Your task to perform on an android device: Open Chrome and go to settings Image 0: 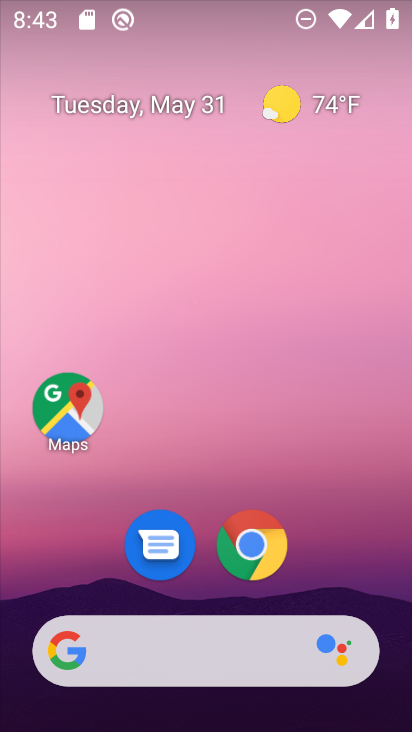
Step 0: drag from (355, 523) to (224, 20)
Your task to perform on an android device: Open Chrome and go to settings Image 1: 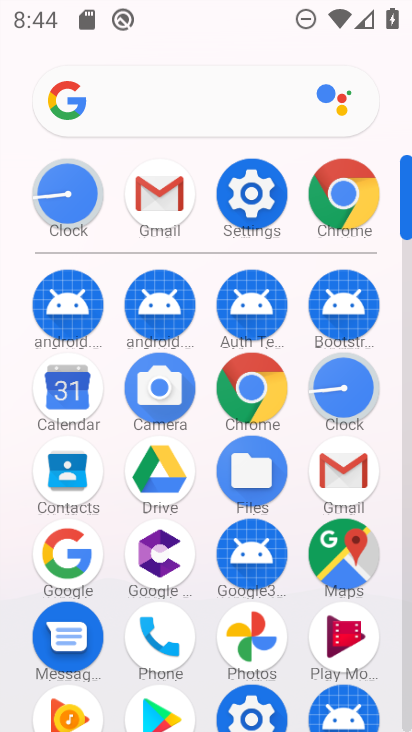
Step 1: drag from (11, 602) to (38, 177)
Your task to perform on an android device: Open Chrome and go to settings Image 2: 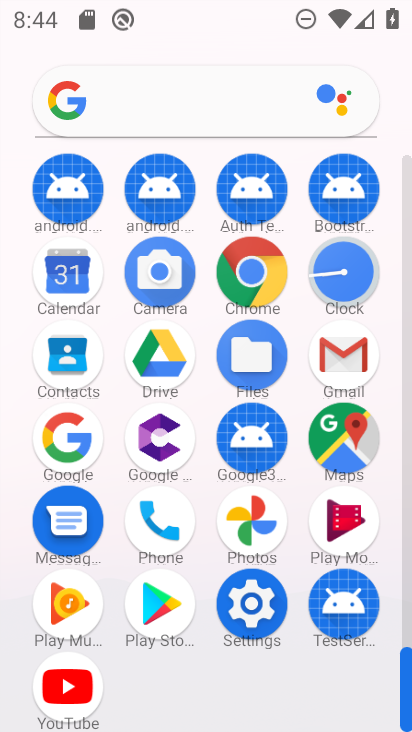
Step 2: click (254, 269)
Your task to perform on an android device: Open Chrome and go to settings Image 3: 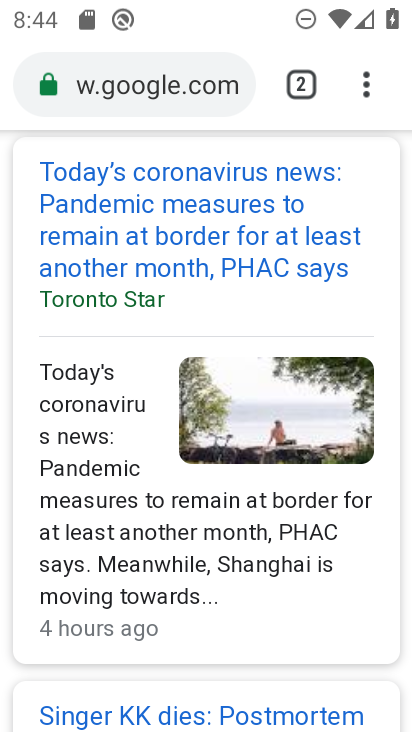
Step 3: drag from (376, 92) to (196, 590)
Your task to perform on an android device: Open Chrome and go to settings Image 4: 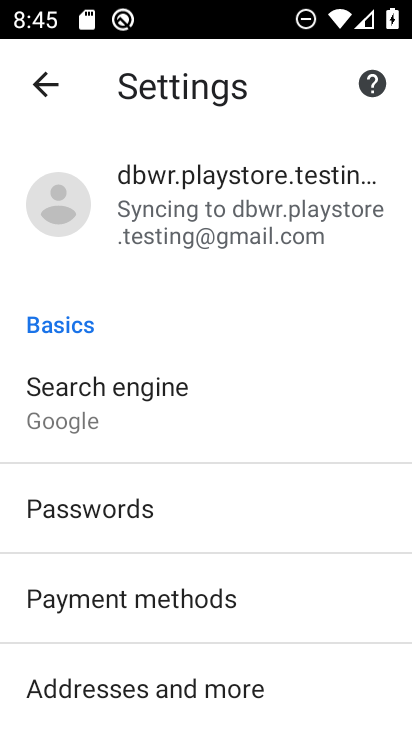
Step 4: drag from (248, 584) to (231, 180)
Your task to perform on an android device: Open Chrome and go to settings Image 5: 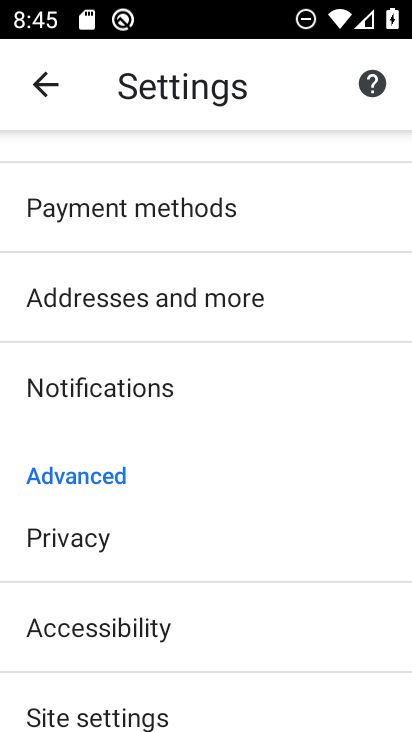
Step 5: drag from (228, 560) to (255, 161)
Your task to perform on an android device: Open Chrome and go to settings Image 6: 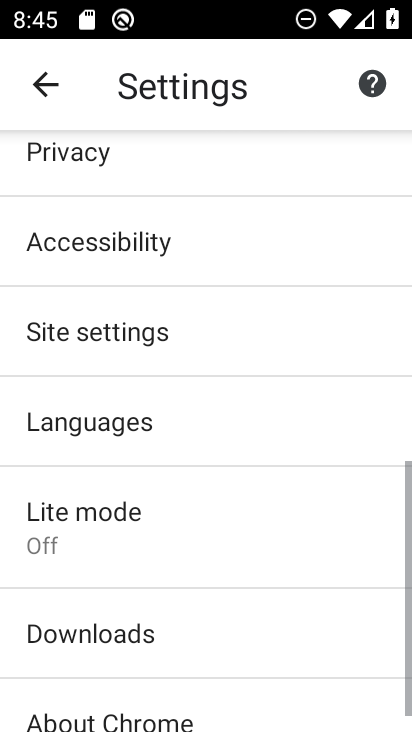
Step 6: drag from (218, 543) to (264, 179)
Your task to perform on an android device: Open Chrome and go to settings Image 7: 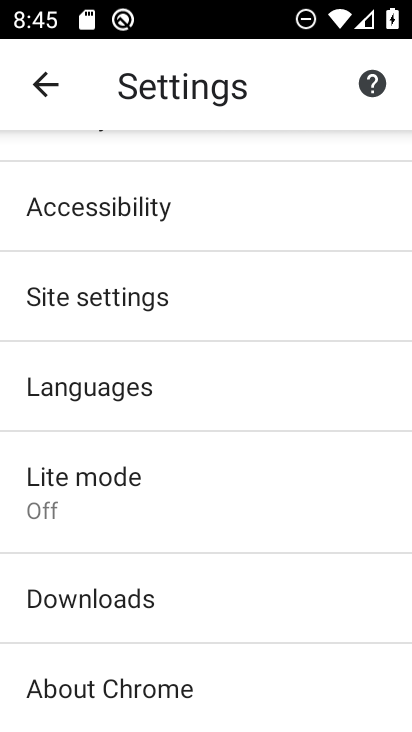
Step 7: click (291, 204)
Your task to perform on an android device: Open Chrome and go to settings Image 8: 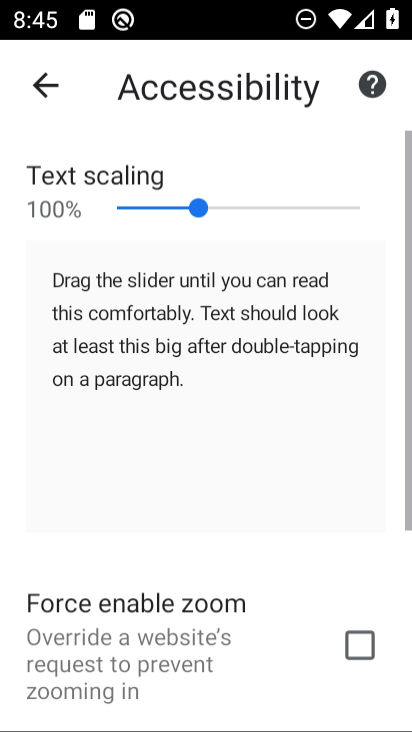
Step 8: drag from (282, 222) to (237, 606)
Your task to perform on an android device: Open Chrome and go to settings Image 9: 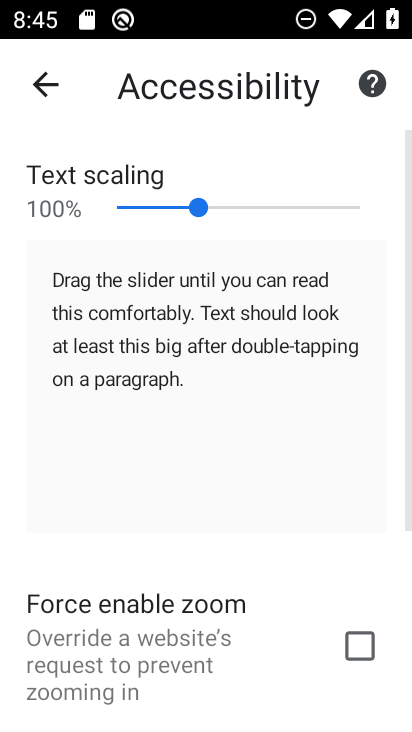
Step 9: click (51, 76)
Your task to perform on an android device: Open Chrome and go to settings Image 10: 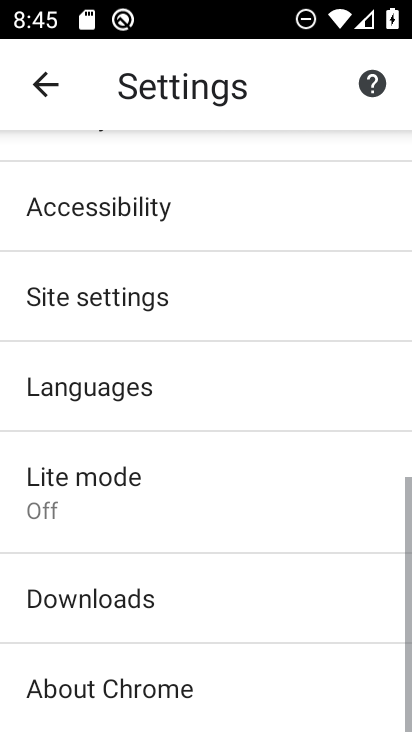
Step 10: task complete